Your task to perform on an android device: check google app version Image 0: 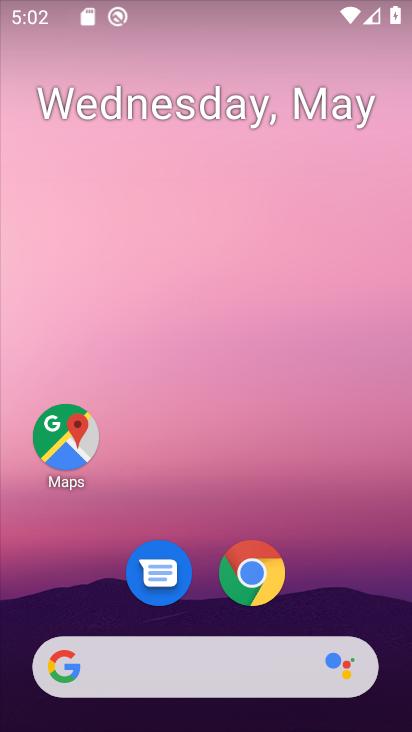
Step 0: drag from (320, 593) to (296, 143)
Your task to perform on an android device: check google app version Image 1: 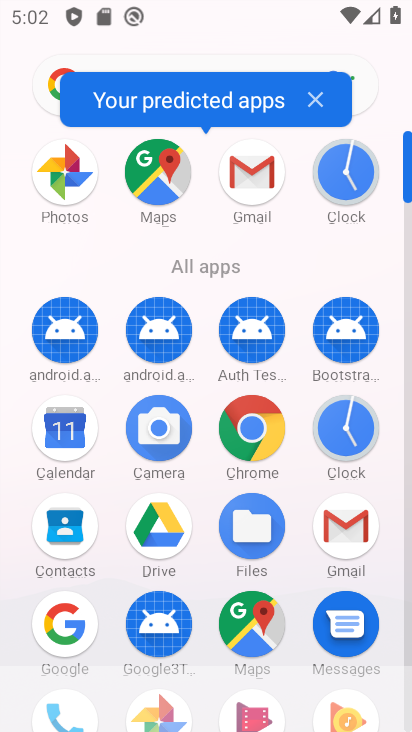
Step 1: drag from (197, 638) to (208, 424)
Your task to perform on an android device: check google app version Image 2: 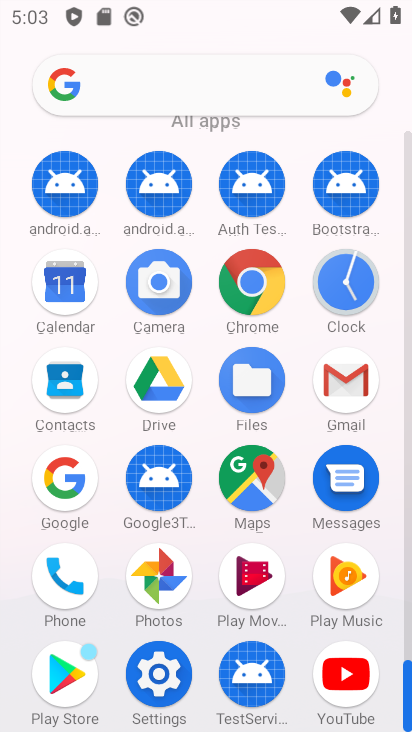
Step 2: click (80, 498)
Your task to perform on an android device: check google app version Image 3: 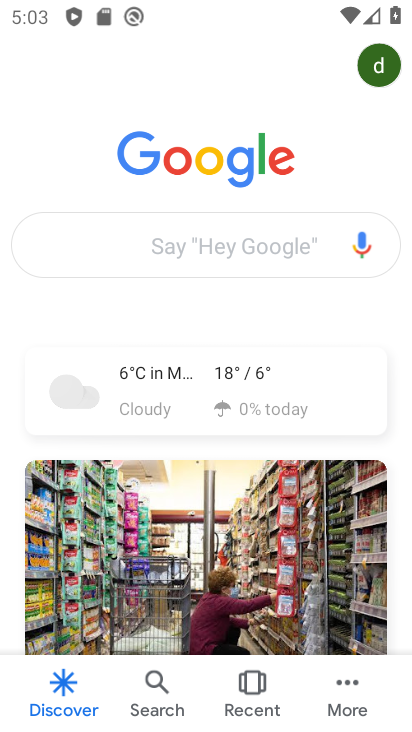
Step 3: click (344, 701)
Your task to perform on an android device: check google app version Image 4: 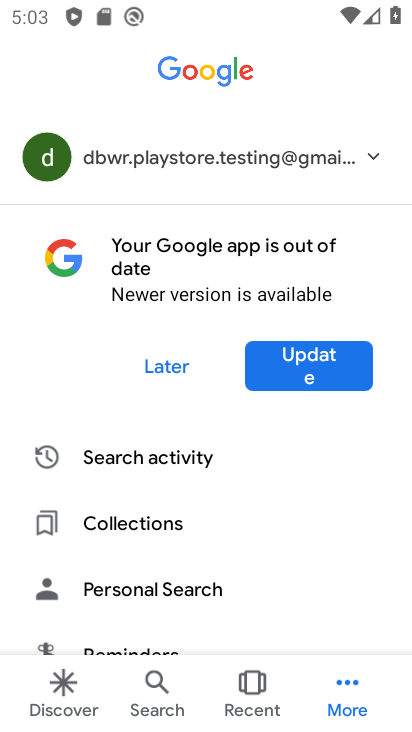
Step 4: drag from (138, 598) to (187, 306)
Your task to perform on an android device: check google app version Image 5: 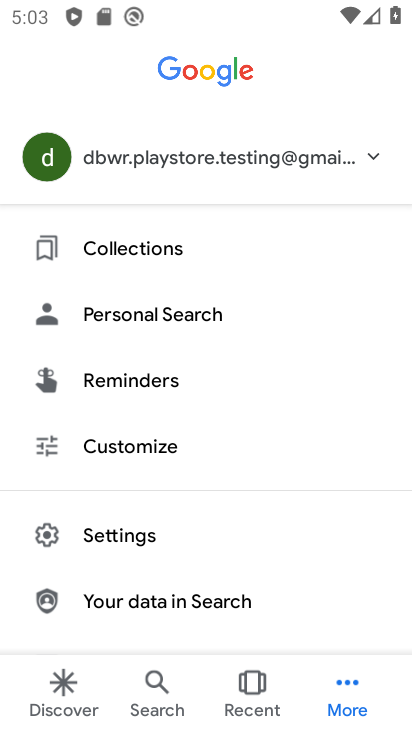
Step 5: click (123, 544)
Your task to perform on an android device: check google app version Image 6: 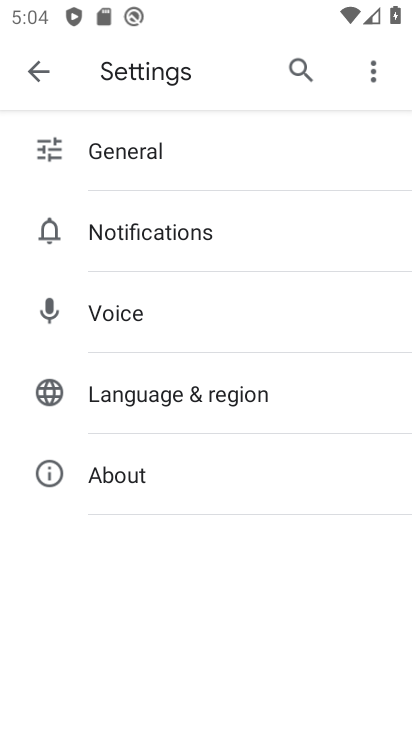
Step 6: click (106, 479)
Your task to perform on an android device: check google app version Image 7: 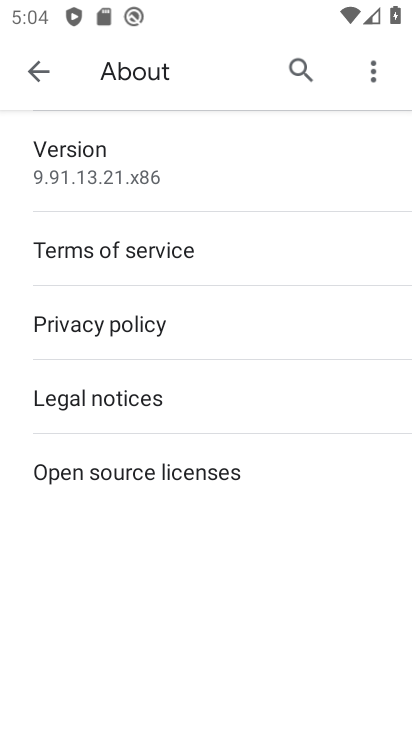
Step 7: task complete